Your task to perform on an android device: turn vacation reply on in the gmail app Image 0: 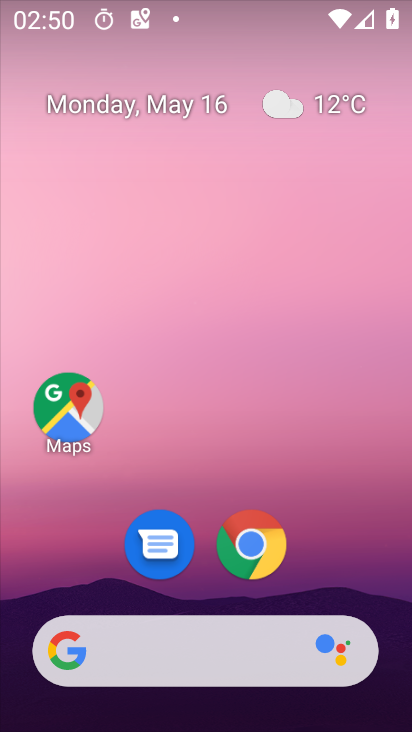
Step 0: drag from (213, 720) to (210, 118)
Your task to perform on an android device: turn vacation reply on in the gmail app Image 1: 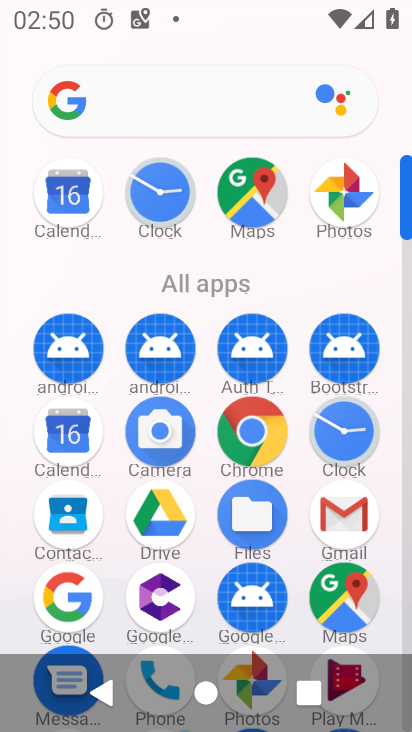
Step 1: click (344, 520)
Your task to perform on an android device: turn vacation reply on in the gmail app Image 2: 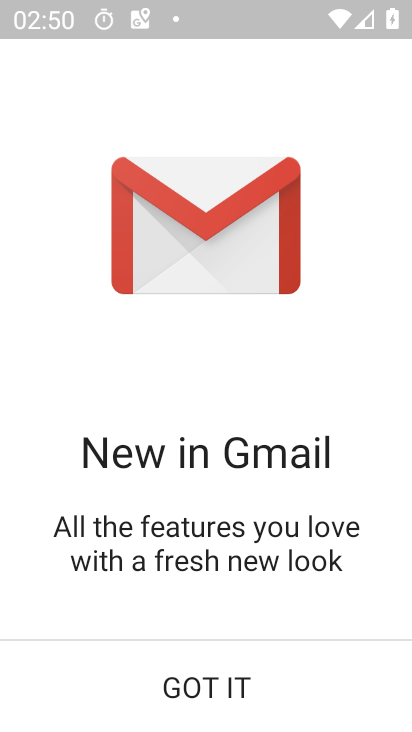
Step 2: click (195, 682)
Your task to perform on an android device: turn vacation reply on in the gmail app Image 3: 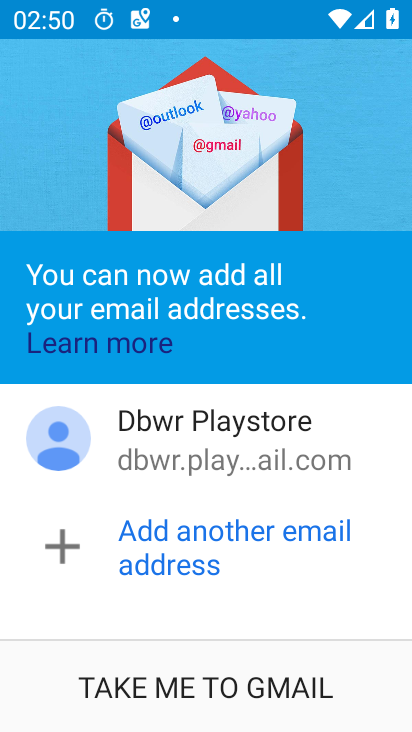
Step 3: click (195, 682)
Your task to perform on an android device: turn vacation reply on in the gmail app Image 4: 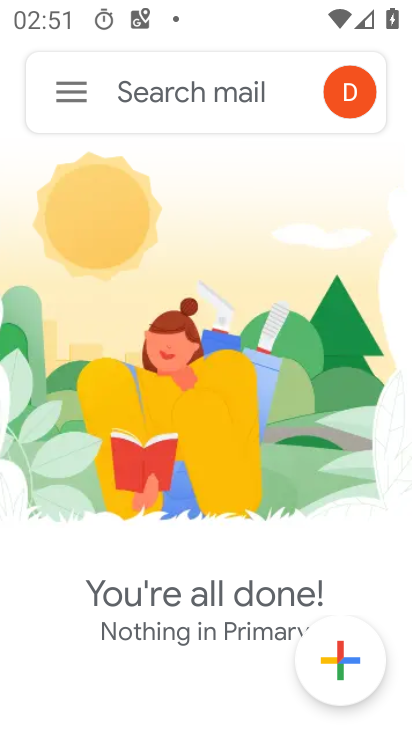
Step 4: click (70, 87)
Your task to perform on an android device: turn vacation reply on in the gmail app Image 5: 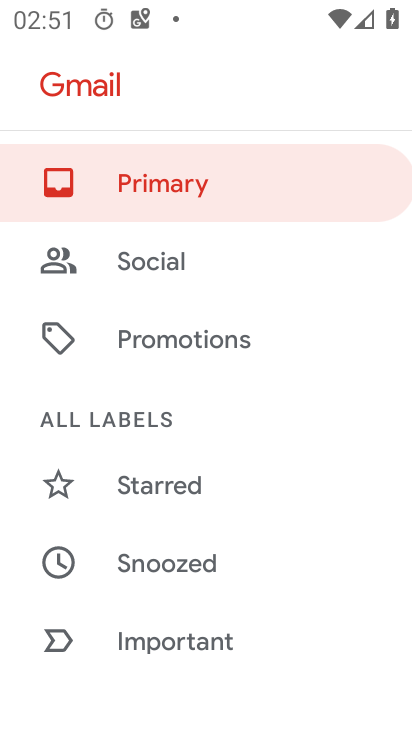
Step 5: drag from (158, 638) to (153, 244)
Your task to perform on an android device: turn vacation reply on in the gmail app Image 6: 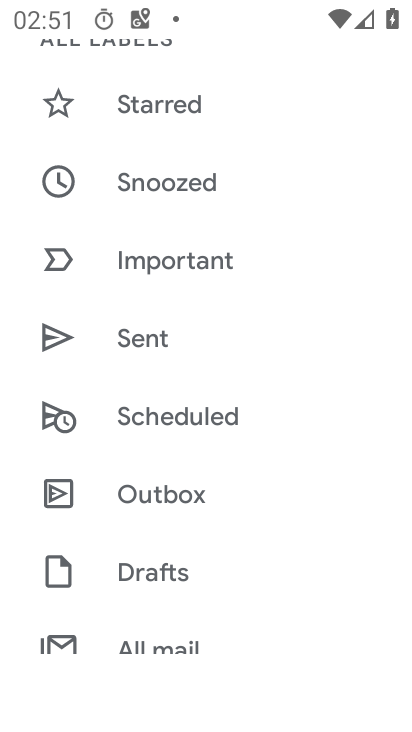
Step 6: drag from (167, 623) to (164, 211)
Your task to perform on an android device: turn vacation reply on in the gmail app Image 7: 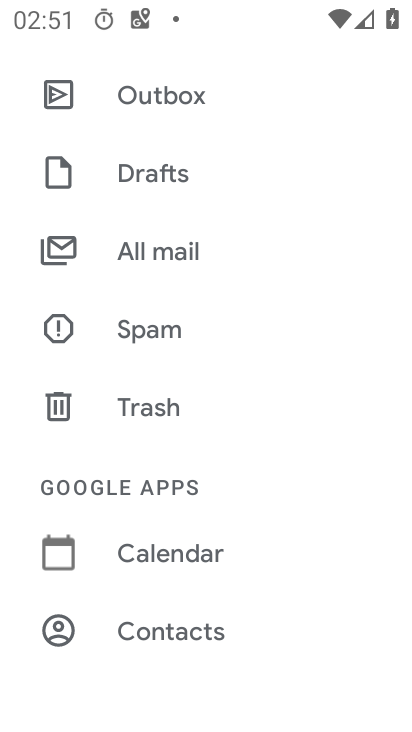
Step 7: drag from (160, 634) to (162, 288)
Your task to perform on an android device: turn vacation reply on in the gmail app Image 8: 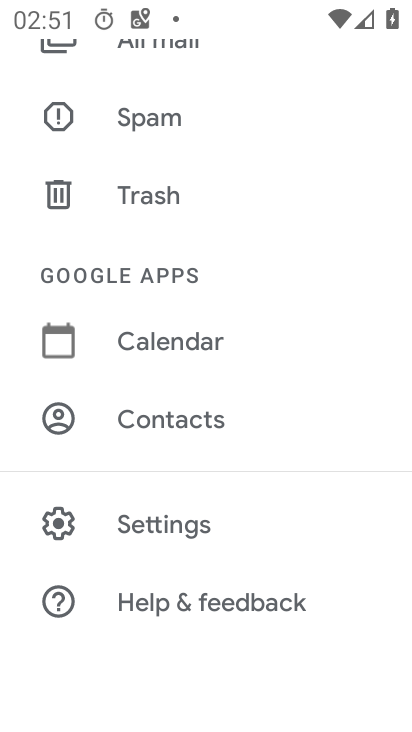
Step 8: click (161, 523)
Your task to perform on an android device: turn vacation reply on in the gmail app Image 9: 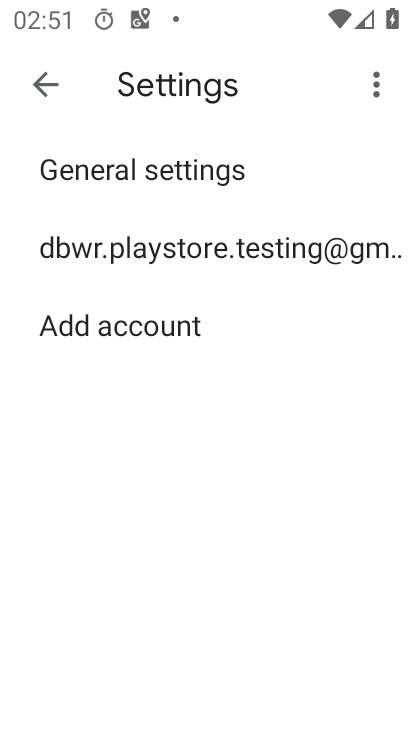
Step 9: click (132, 246)
Your task to perform on an android device: turn vacation reply on in the gmail app Image 10: 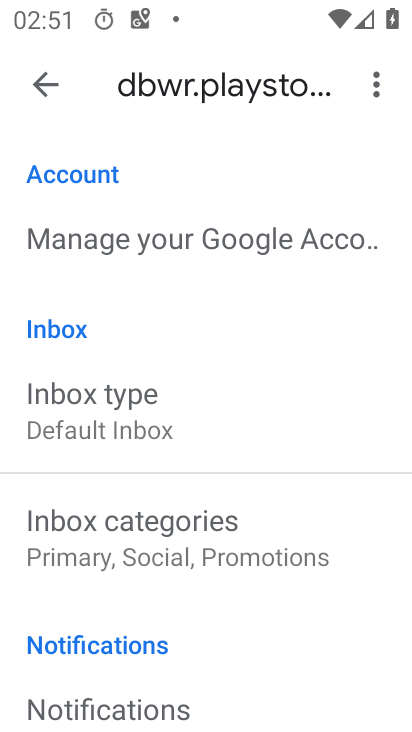
Step 10: drag from (221, 667) to (221, 379)
Your task to perform on an android device: turn vacation reply on in the gmail app Image 11: 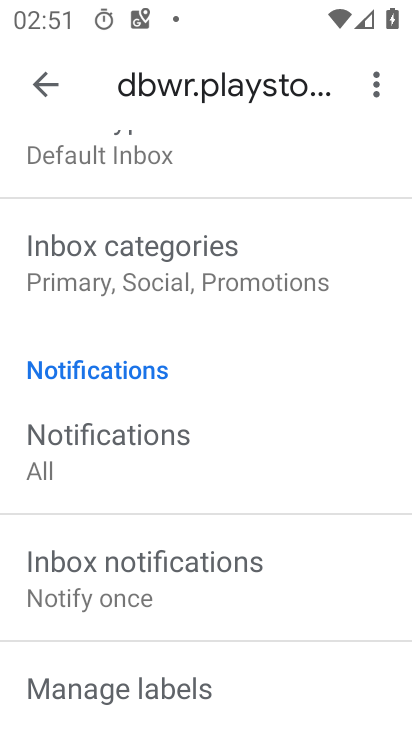
Step 11: drag from (204, 664) to (200, 322)
Your task to perform on an android device: turn vacation reply on in the gmail app Image 12: 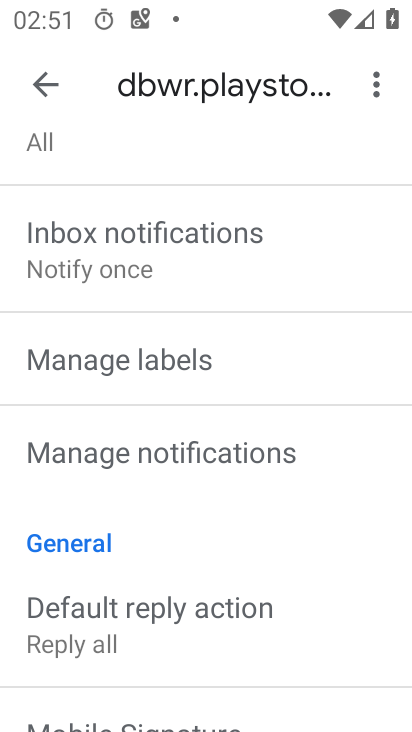
Step 12: drag from (202, 675) to (206, 370)
Your task to perform on an android device: turn vacation reply on in the gmail app Image 13: 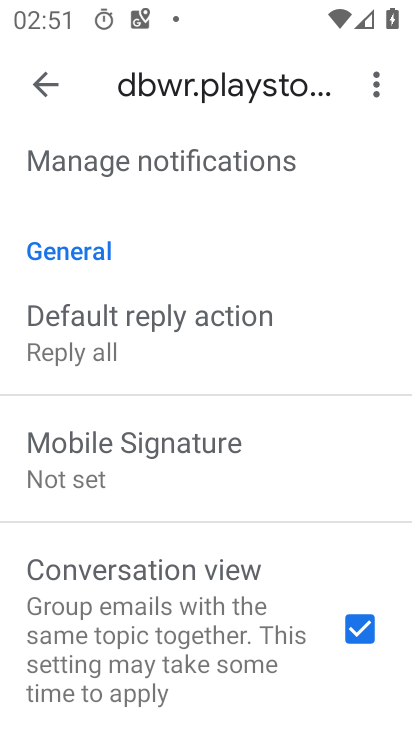
Step 13: drag from (154, 693) to (171, 448)
Your task to perform on an android device: turn vacation reply on in the gmail app Image 14: 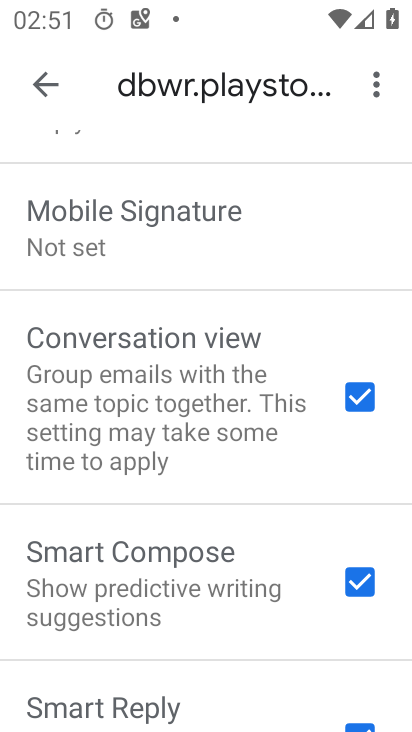
Step 14: drag from (246, 702) to (245, 486)
Your task to perform on an android device: turn vacation reply on in the gmail app Image 15: 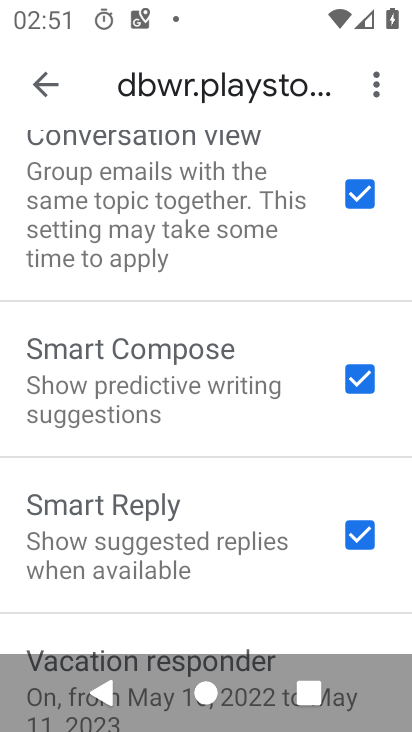
Step 15: drag from (219, 631) to (218, 421)
Your task to perform on an android device: turn vacation reply on in the gmail app Image 16: 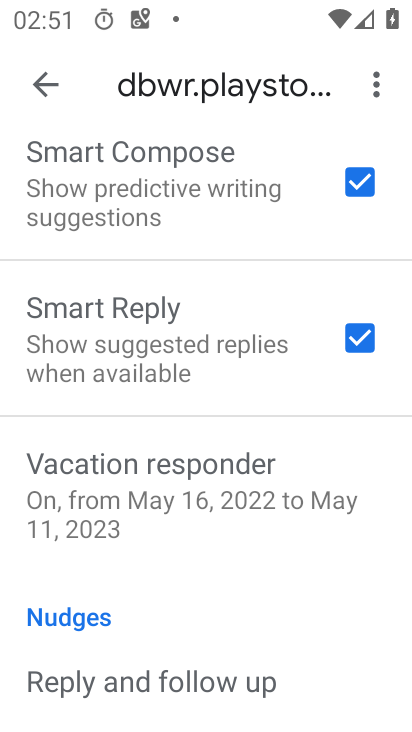
Step 16: click (191, 489)
Your task to perform on an android device: turn vacation reply on in the gmail app Image 17: 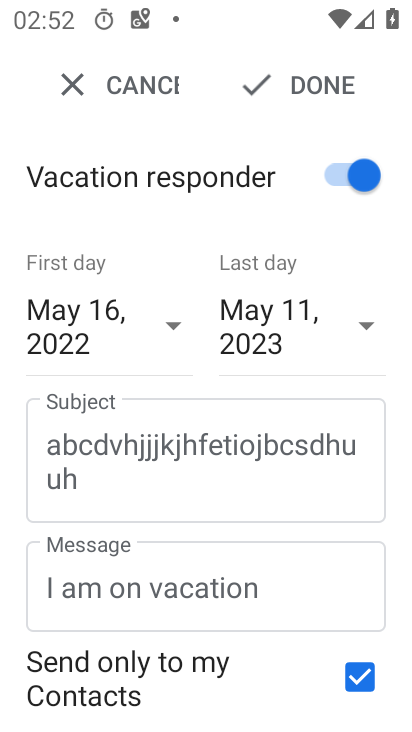
Step 17: task complete